Your task to perform on an android device: Open Google Maps Image 0: 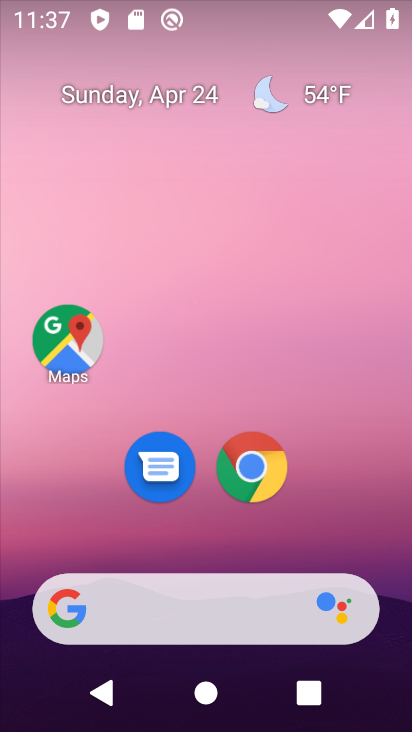
Step 0: drag from (218, 498) to (269, 74)
Your task to perform on an android device: Open Google Maps Image 1: 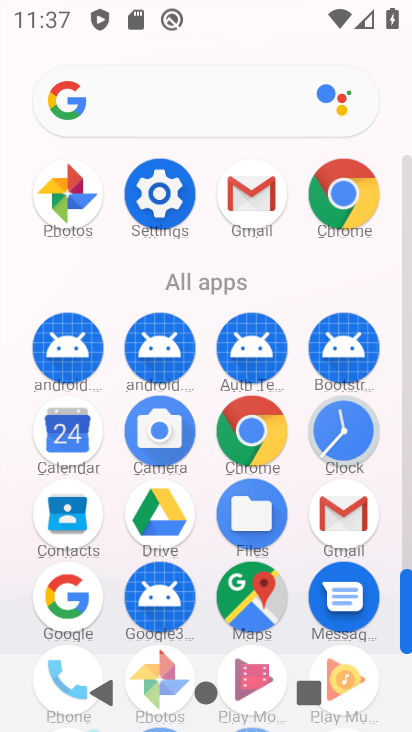
Step 1: click (265, 601)
Your task to perform on an android device: Open Google Maps Image 2: 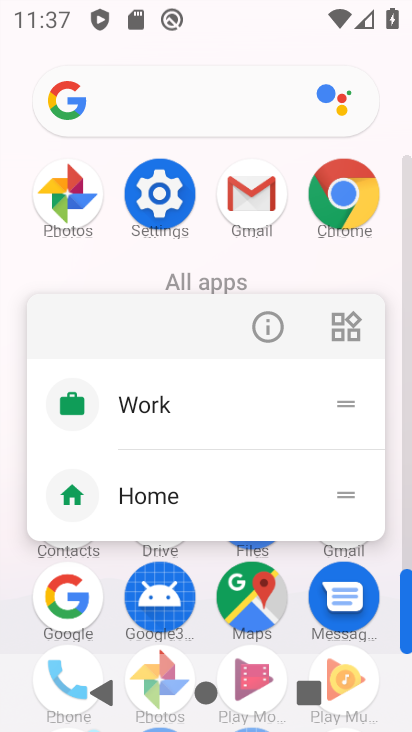
Step 2: click (257, 332)
Your task to perform on an android device: Open Google Maps Image 3: 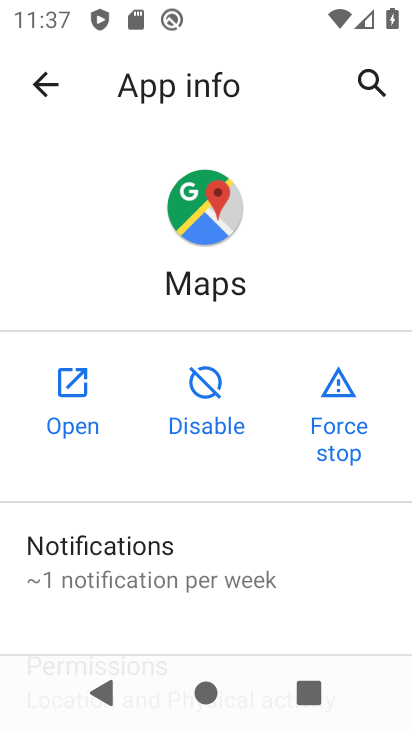
Step 3: click (59, 433)
Your task to perform on an android device: Open Google Maps Image 4: 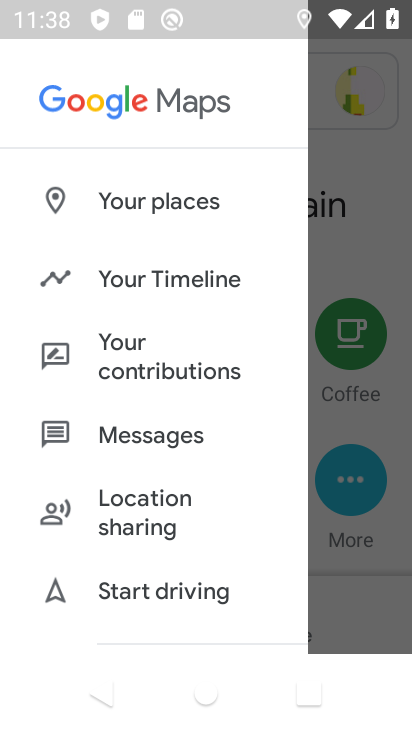
Step 4: task complete